Your task to perform on an android device: Turn off the flashlight Image 0: 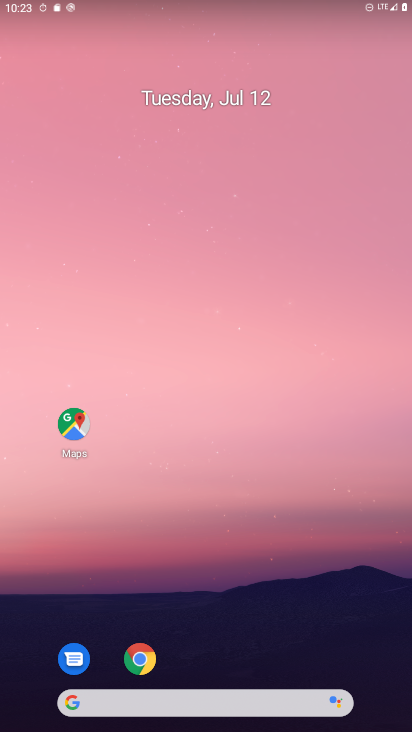
Step 0: drag from (372, 693) to (16, 403)
Your task to perform on an android device: Turn off the flashlight Image 1: 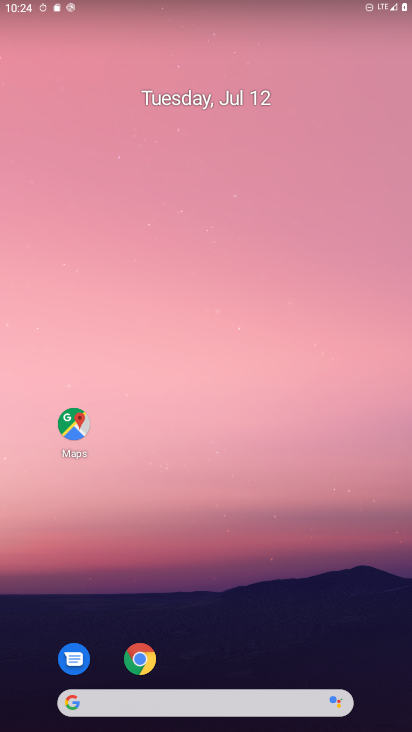
Step 1: drag from (394, 674) to (144, 9)
Your task to perform on an android device: Turn off the flashlight Image 2: 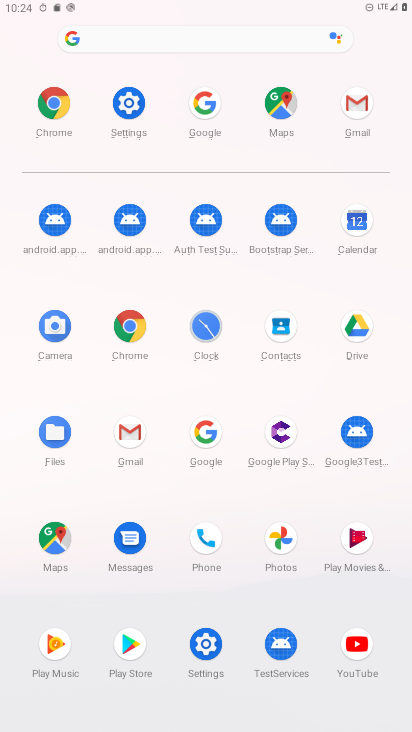
Step 2: click (128, 90)
Your task to perform on an android device: Turn off the flashlight Image 3: 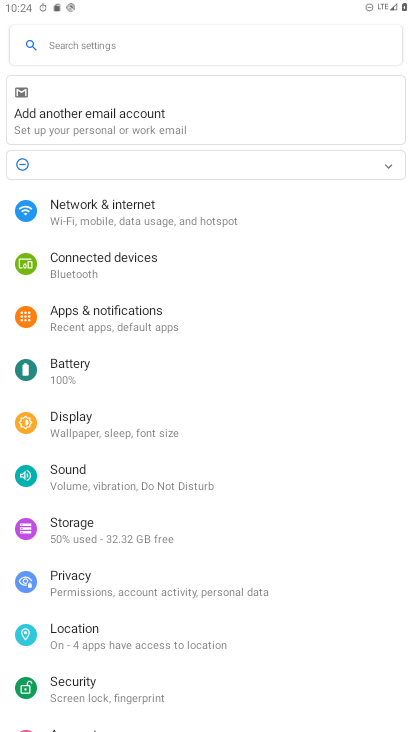
Step 3: task complete